Your task to perform on an android device: Open my contact list Image 0: 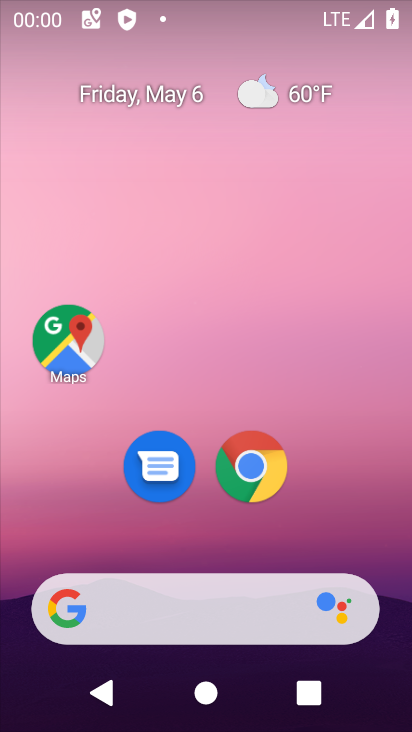
Step 0: drag from (219, 582) to (206, 226)
Your task to perform on an android device: Open my contact list Image 1: 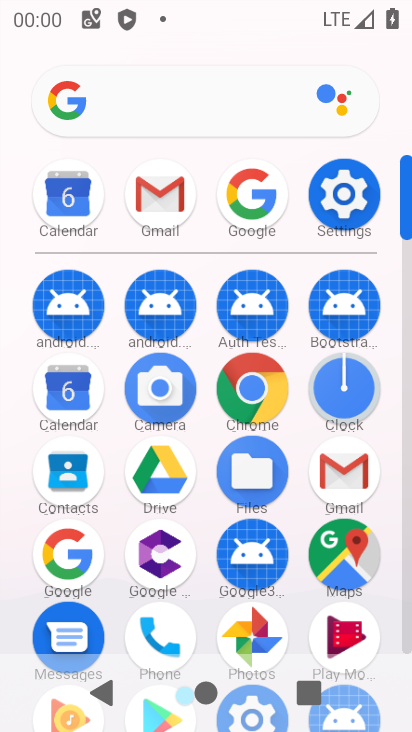
Step 1: click (57, 485)
Your task to perform on an android device: Open my contact list Image 2: 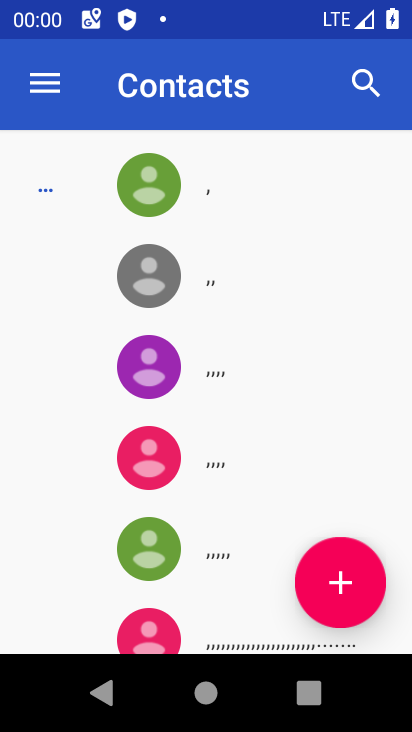
Step 2: task complete